Your task to perform on an android device: What's the weather? Image 0: 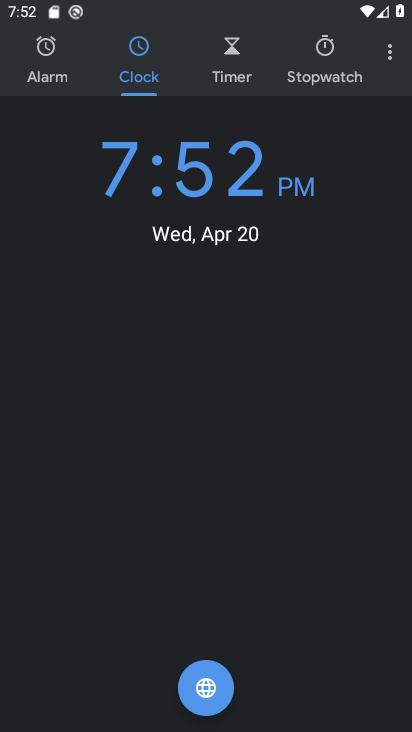
Step 0: press home button
Your task to perform on an android device: What's the weather? Image 1: 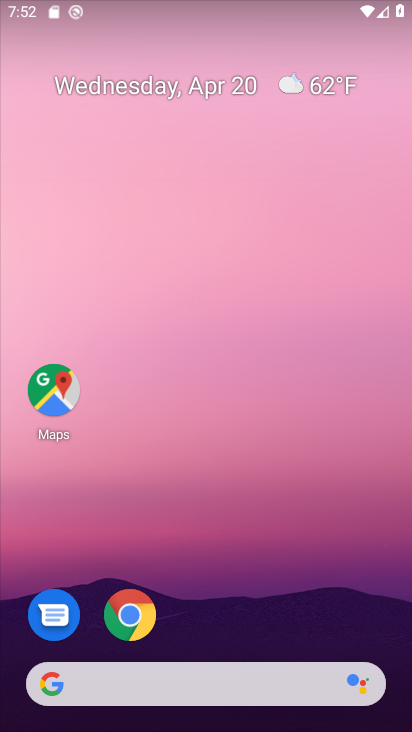
Step 1: click (327, 86)
Your task to perform on an android device: What's the weather? Image 2: 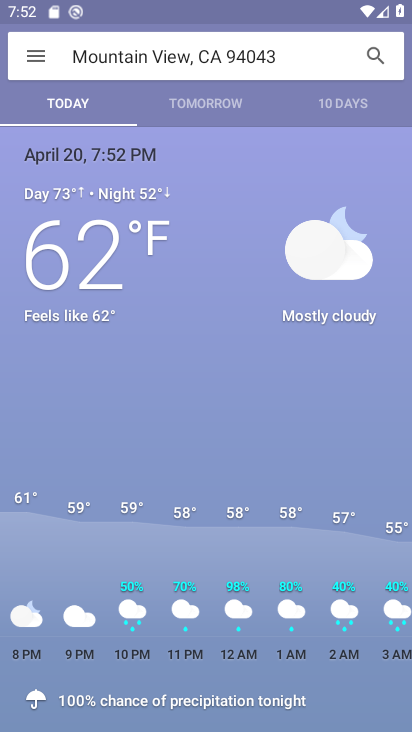
Step 2: click (217, 563)
Your task to perform on an android device: What's the weather? Image 3: 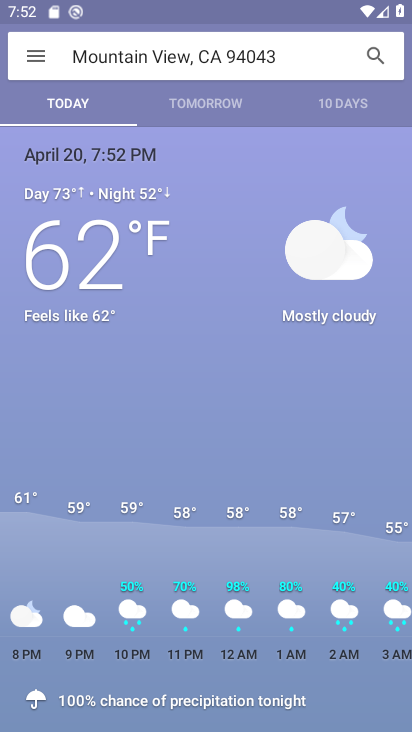
Step 3: task complete